Your task to perform on an android device: View the shopping cart on target.com. Search for "razer blade" on target.com, select the first entry, and add it to the cart. Image 0: 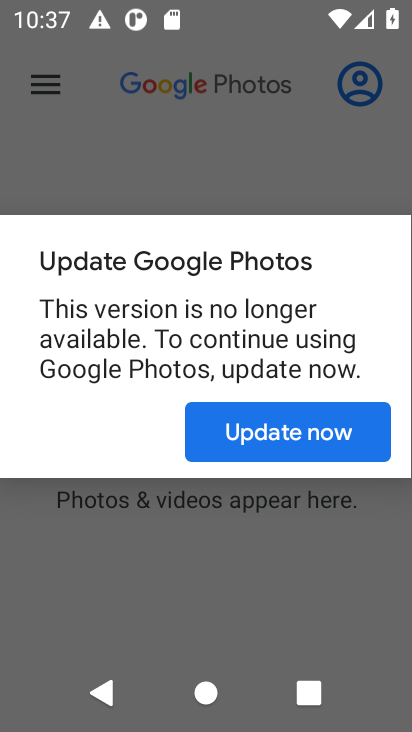
Step 0: press home button
Your task to perform on an android device: View the shopping cart on target.com. Search for "razer blade" on target.com, select the first entry, and add it to the cart. Image 1: 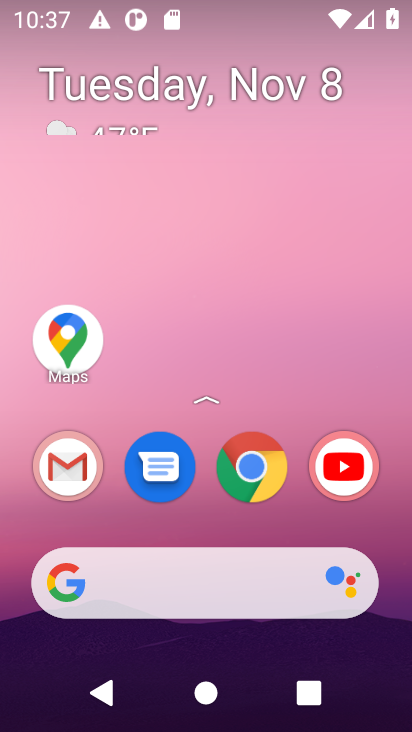
Step 1: click (218, 598)
Your task to perform on an android device: View the shopping cart on target.com. Search for "razer blade" on target.com, select the first entry, and add it to the cart. Image 2: 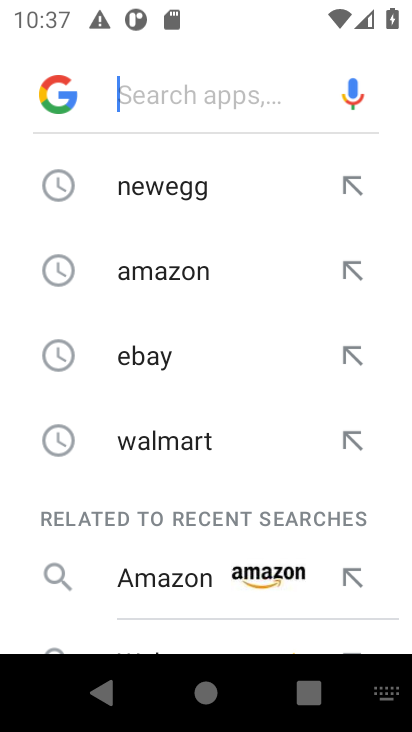
Step 2: type "target"
Your task to perform on an android device: View the shopping cart on target.com. Search for "razer blade" on target.com, select the first entry, and add it to the cart. Image 3: 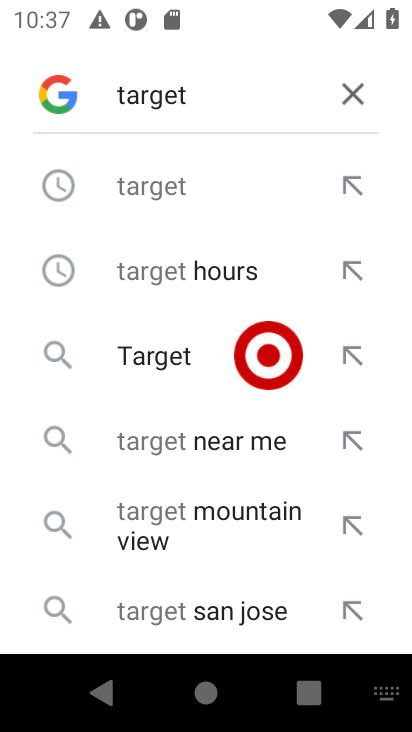
Step 3: click (154, 361)
Your task to perform on an android device: View the shopping cart on target.com. Search for "razer blade" on target.com, select the first entry, and add it to the cart. Image 4: 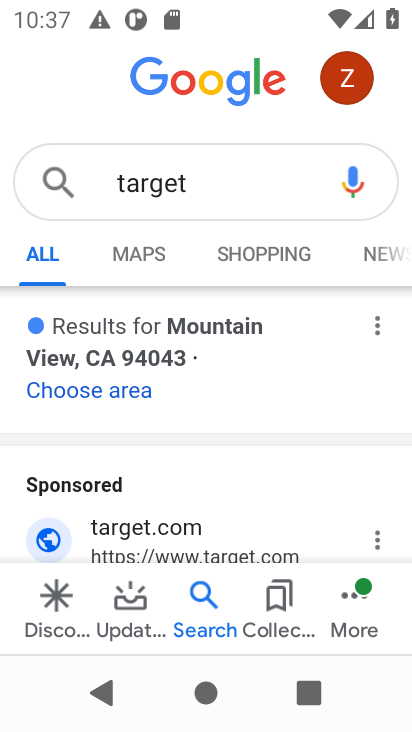
Step 4: click (159, 523)
Your task to perform on an android device: View the shopping cart on target.com. Search for "razer blade" on target.com, select the first entry, and add it to the cart. Image 5: 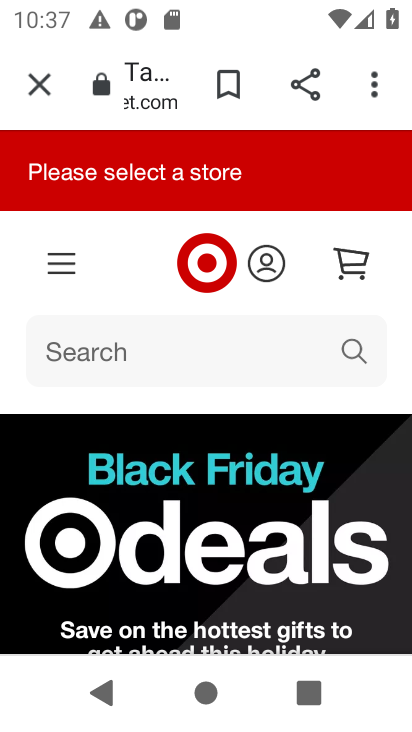
Step 5: click (89, 361)
Your task to perform on an android device: View the shopping cart on target.com. Search for "razer blade" on target.com, select the first entry, and add it to the cart. Image 6: 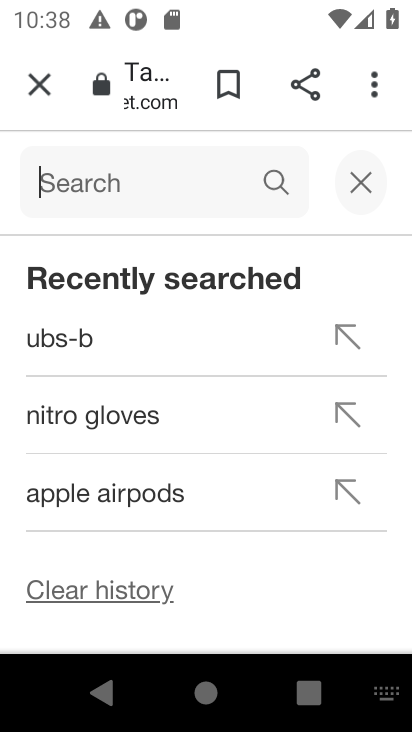
Step 6: task complete